Your task to perform on an android device: check the backup settings in the google photos Image 0: 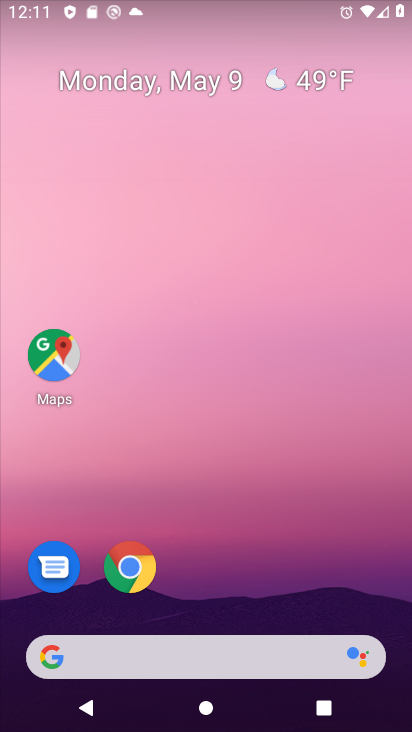
Step 0: drag from (218, 730) to (219, 142)
Your task to perform on an android device: check the backup settings in the google photos Image 1: 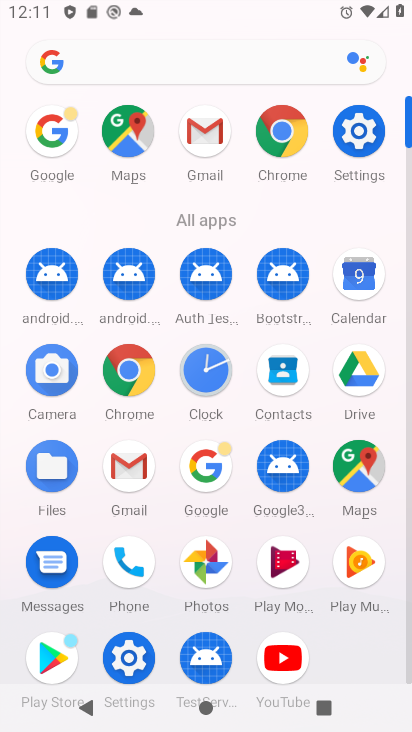
Step 1: click (201, 556)
Your task to perform on an android device: check the backup settings in the google photos Image 2: 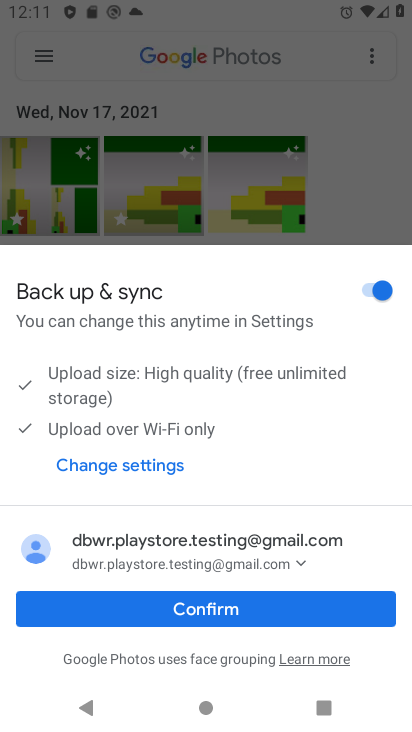
Step 2: click (191, 611)
Your task to perform on an android device: check the backup settings in the google photos Image 3: 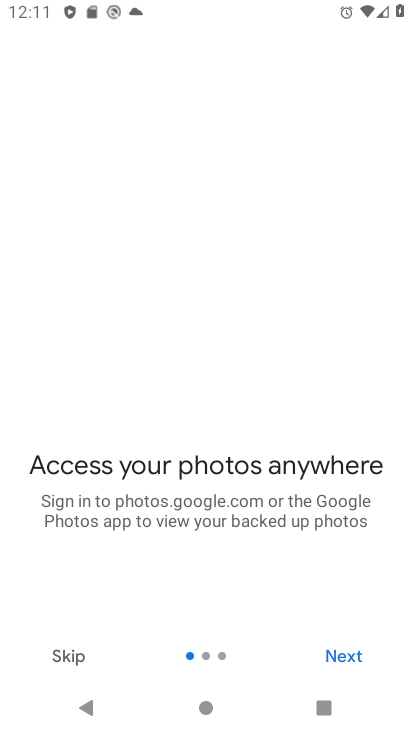
Step 3: click (338, 656)
Your task to perform on an android device: check the backup settings in the google photos Image 4: 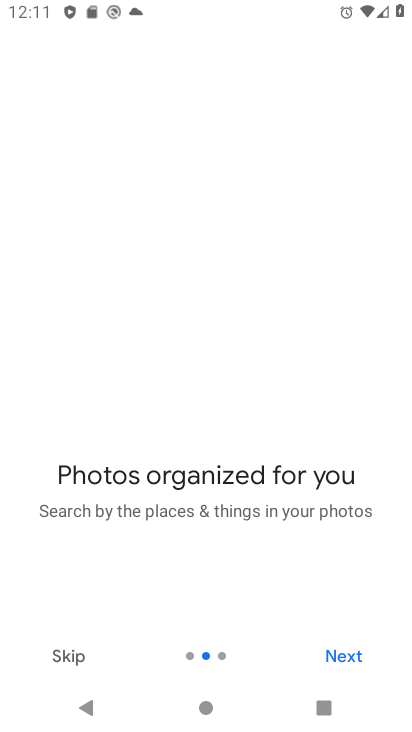
Step 4: click (336, 655)
Your task to perform on an android device: check the backup settings in the google photos Image 5: 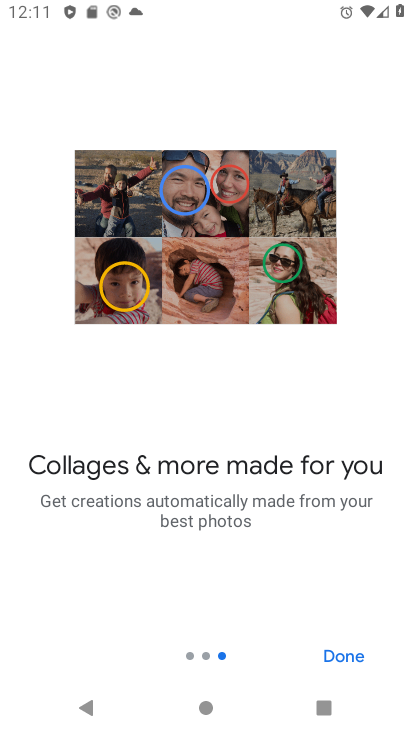
Step 5: click (336, 654)
Your task to perform on an android device: check the backup settings in the google photos Image 6: 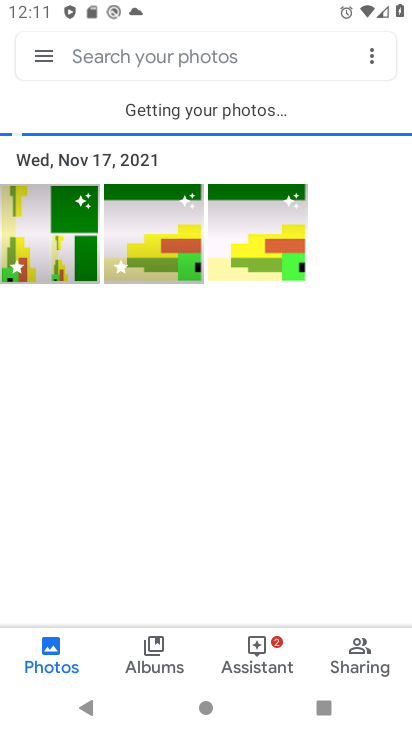
Step 6: click (34, 53)
Your task to perform on an android device: check the backup settings in the google photos Image 7: 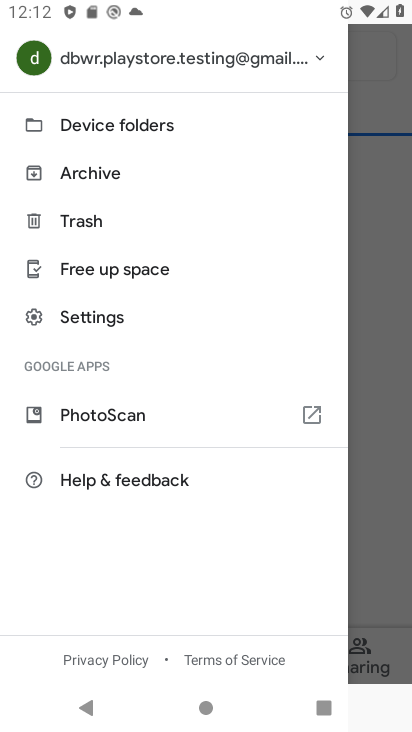
Step 7: click (89, 312)
Your task to perform on an android device: check the backup settings in the google photos Image 8: 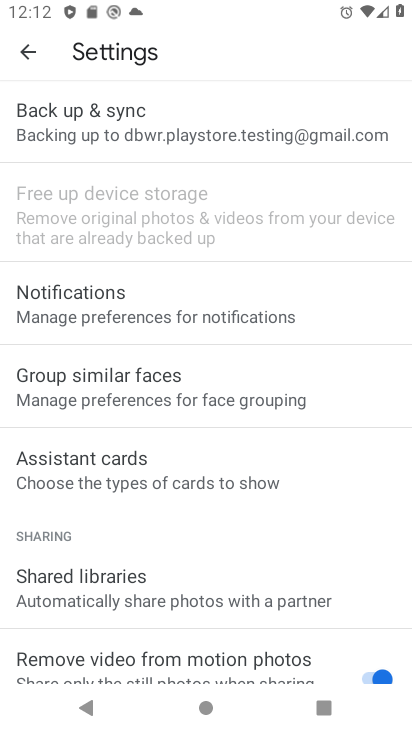
Step 8: click (122, 117)
Your task to perform on an android device: check the backup settings in the google photos Image 9: 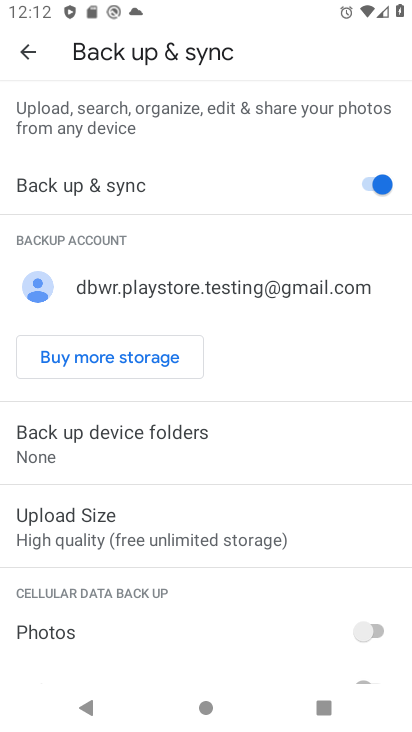
Step 9: task complete